Your task to perform on an android device: Go to settings Image 0: 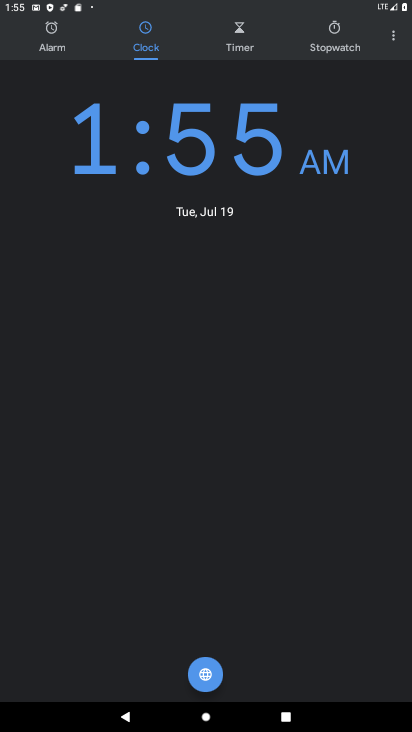
Step 0: press home button
Your task to perform on an android device: Go to settings Image 1: 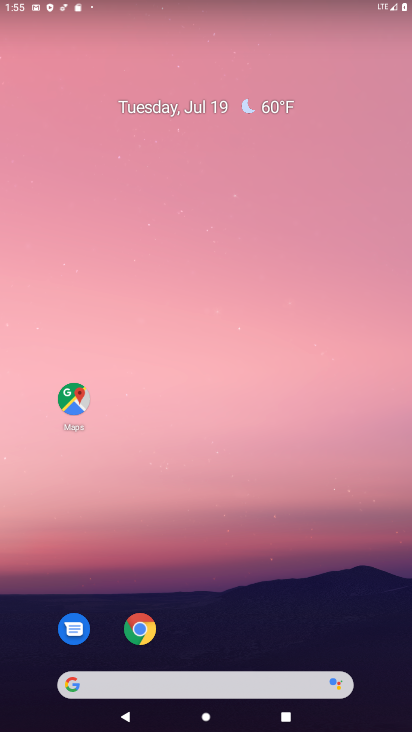
Step 1: drag from (365, 643) to (333, 200)
Your task to perform on an android device: Go to settings Image 2: 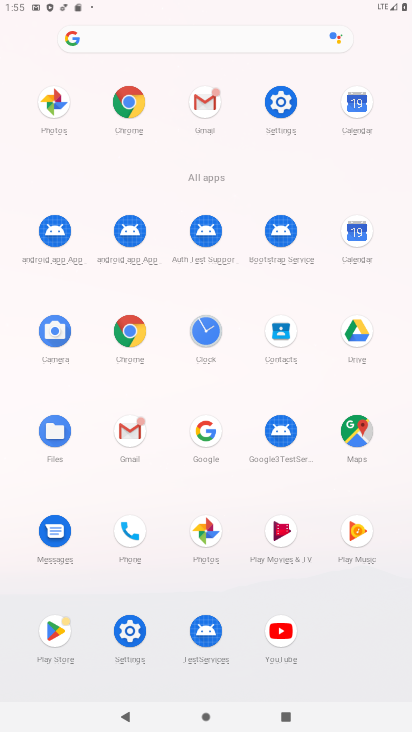
Step 2: click (129, 631)
Your task to perform on an android device: Go to settings Image 3: 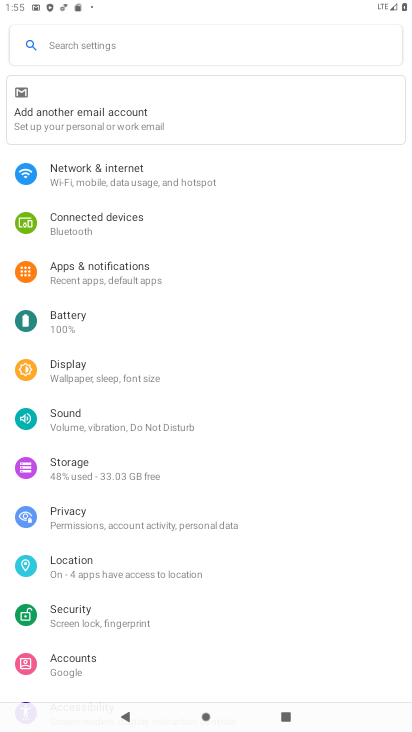
Step 3: task complete